Your task to perform on an android device: Open Yahoo.com Image 0: 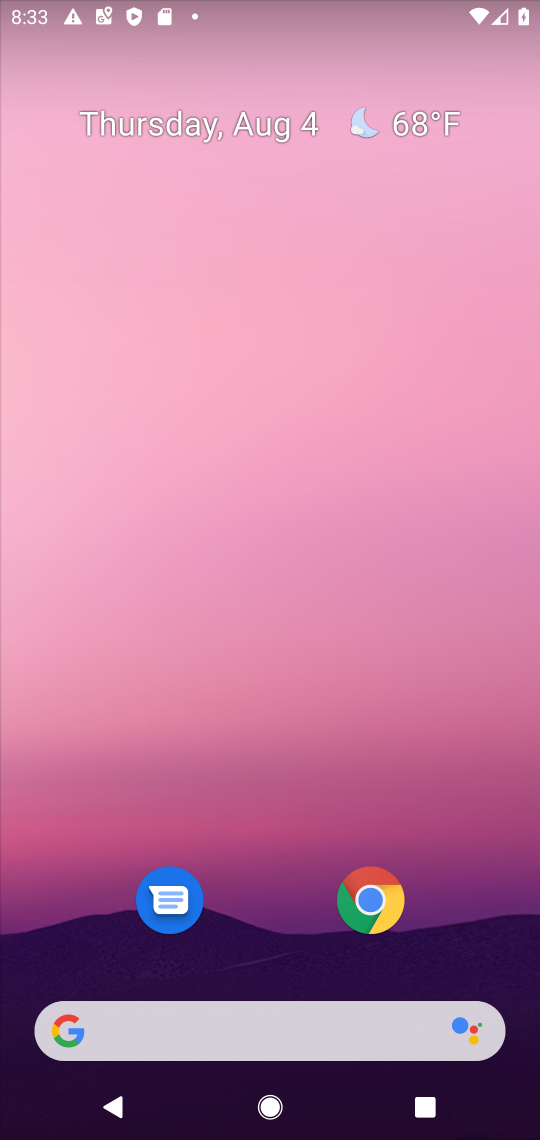
Step 0: click (374, 903)
Your task to perform on an android device: Open Yahoo.com Image 1: 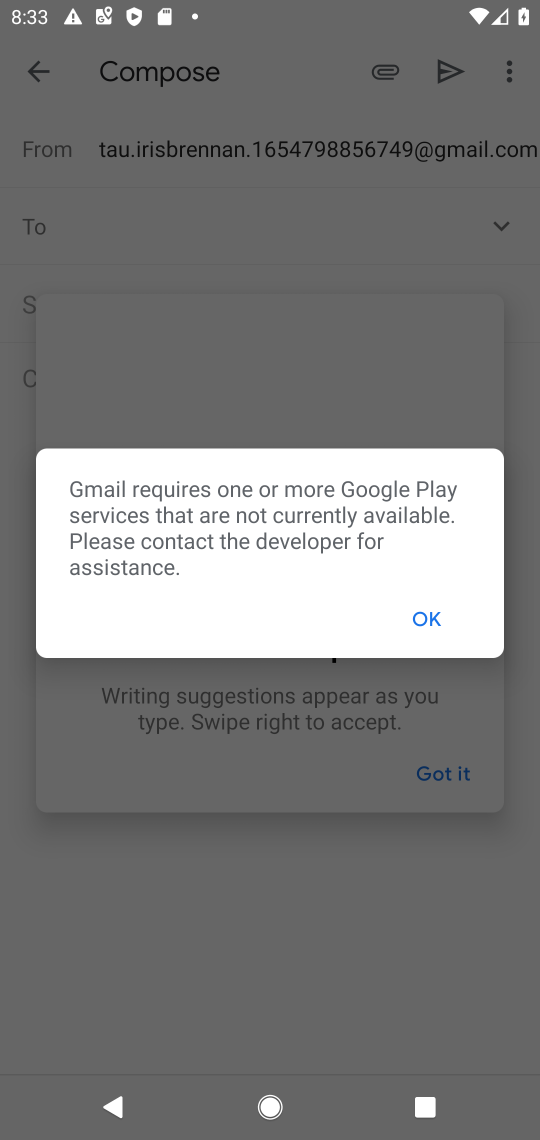
Step 1: click (419, 616)
Your task to perform on an android device: Open Yahoo.com Image 2: 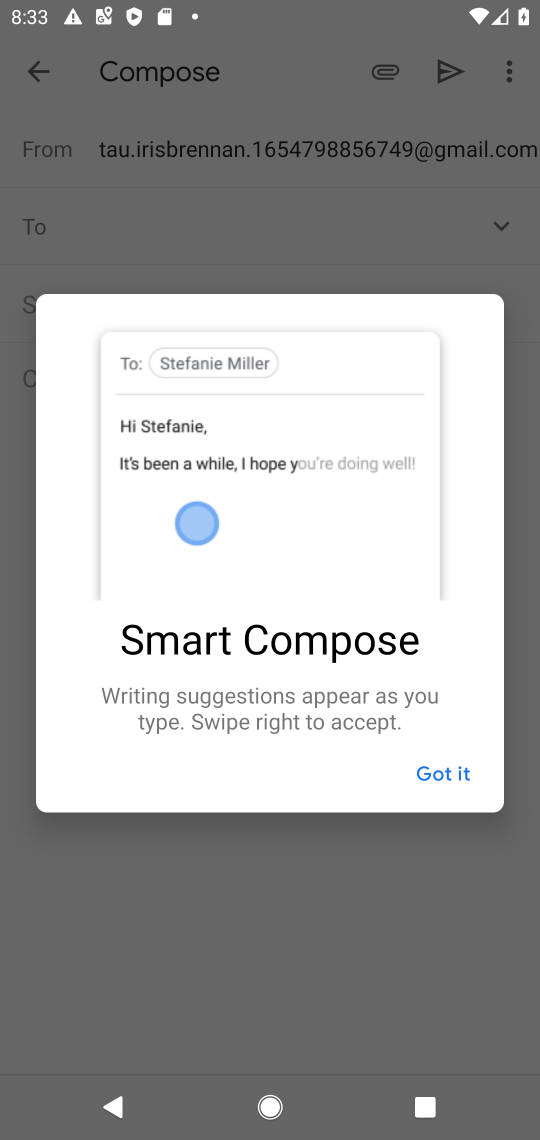
Step 2: click (432, 768)
Your task to perform on an android device: Open Yahoo.com Image 3: 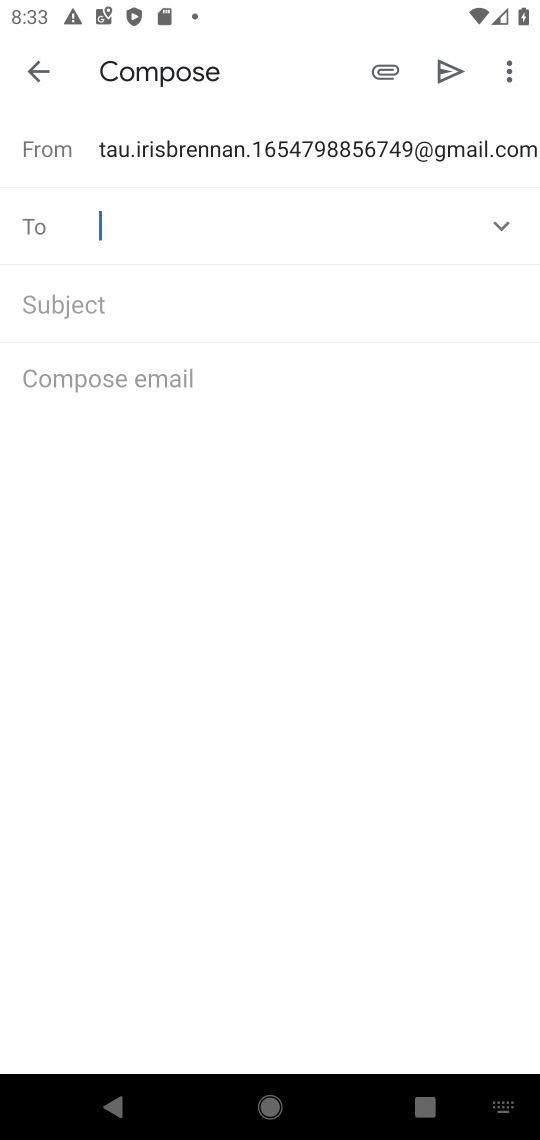
Step 3: press home button
Your task to perform on an android device: Open Yahoo.com Image 4: 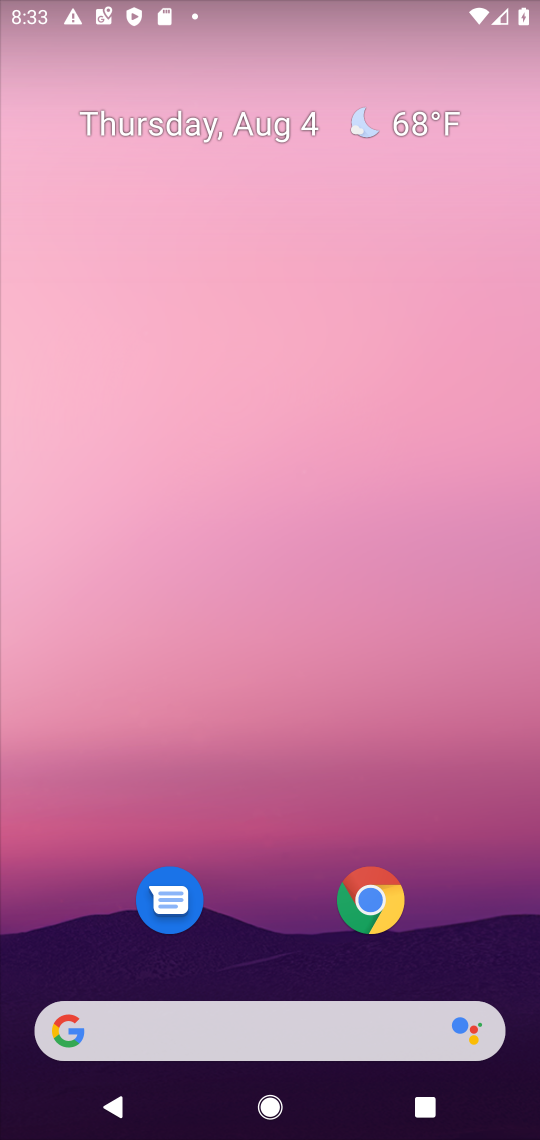
Step 4: click (377, 902)
Your task to perform on an android device: Open Yahoo.com Image 5: 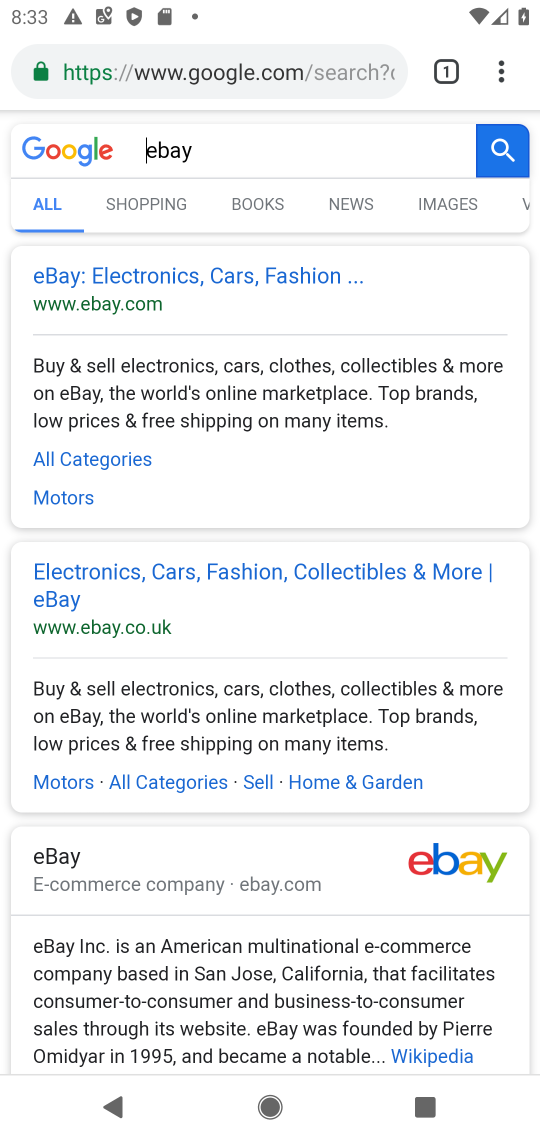
Step 5: click (201, 74)
Your task to perform on an android device: Open Yahoo.com Image 6: 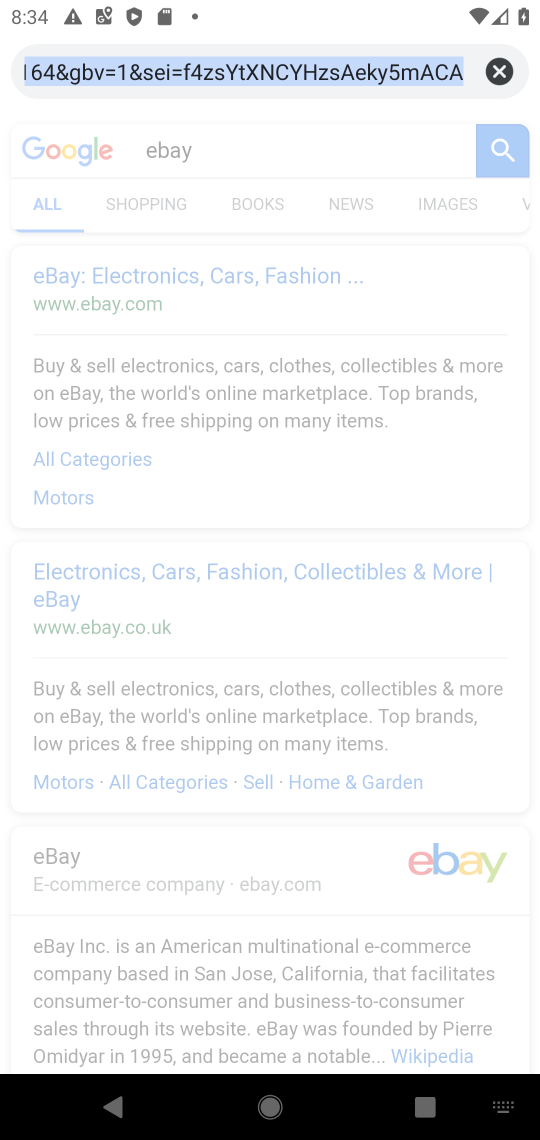
Step 6: type "www.yahoo.com"
Your task to perform on an android device: Open Yahoo.com Image 7: 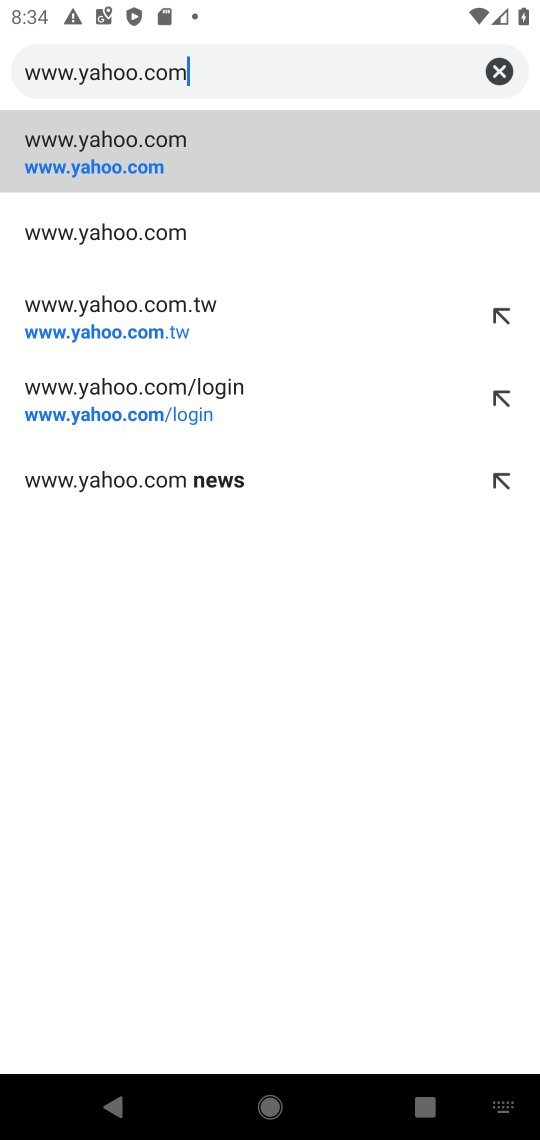
Step 7: click (100, 171)
Your task to perform on an android device: Open Yahoo.com Image 8: 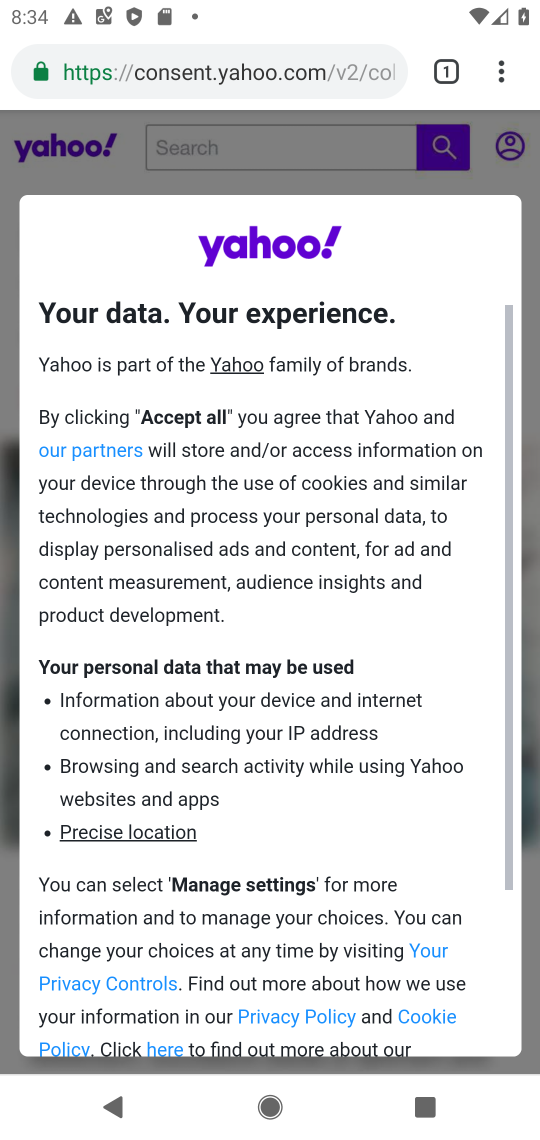
Step 8: task complete